Your task to perform on an android device: empty trash in google photos Image 0: 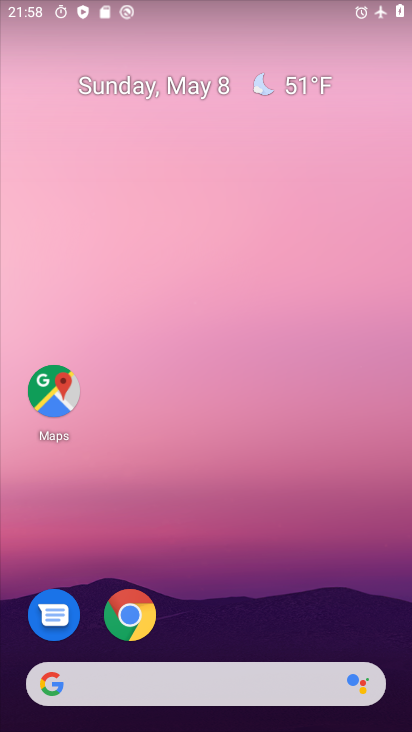
Step 0: drag from (210, 592) to (215, 190)
Your task to perform on an android device: empty trash in google photos Image 1: 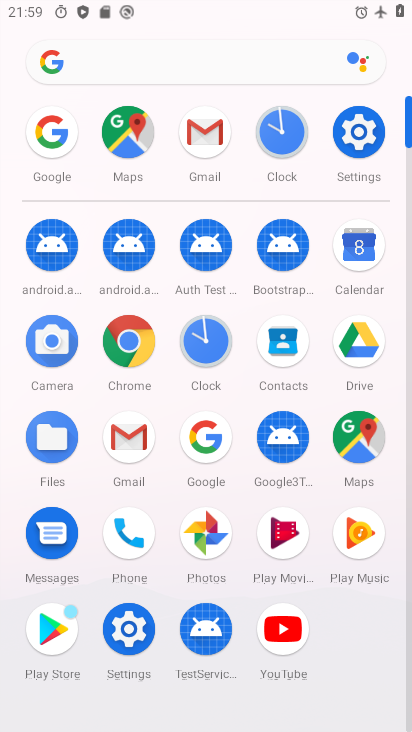
Step 1: click (215, 521)
Your task to perform on an android device: empty trash in google photos Image 2: 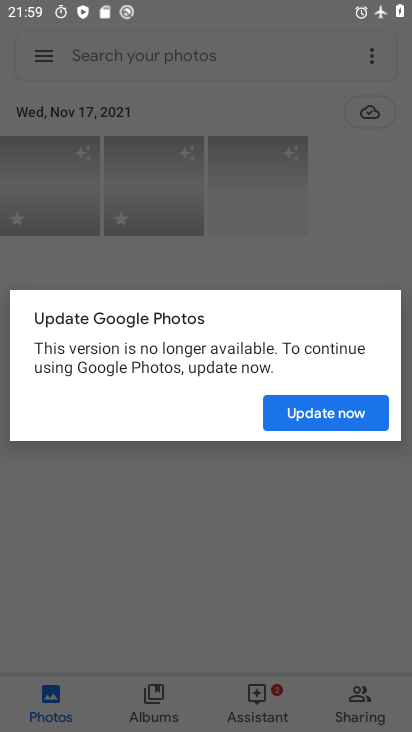
Step 2: click (319, 412)
Your task to perform on an android device: empty trash in google photos Image 3: 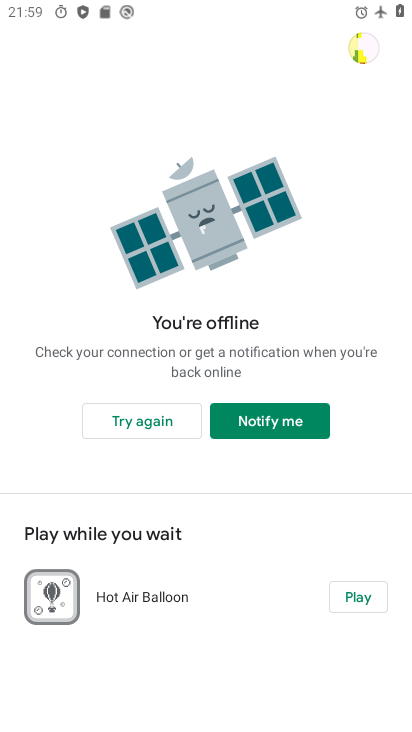
Step 3: task complete